Your task to perform on an android device: Open settings Image 0: 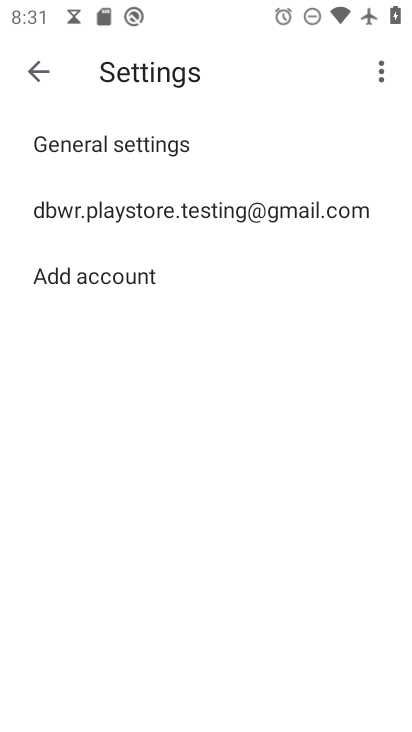
Step 0: press home button
Your task to perform on an android device: Open settings Image 1: 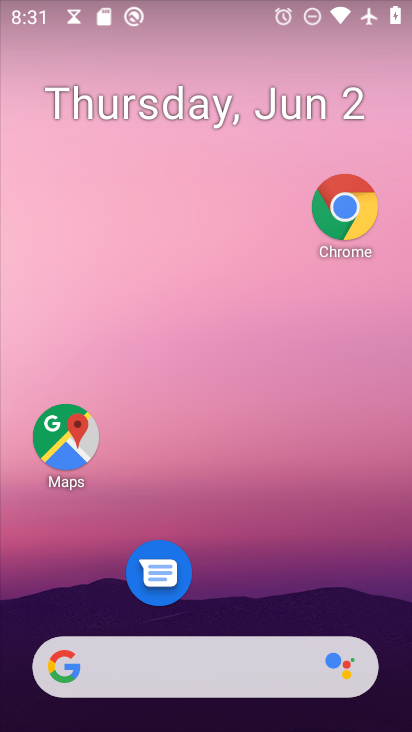
Step 1: drag from (167, 641) to (257, 118)
Your task to perform on an android device: Open settings Image 2: 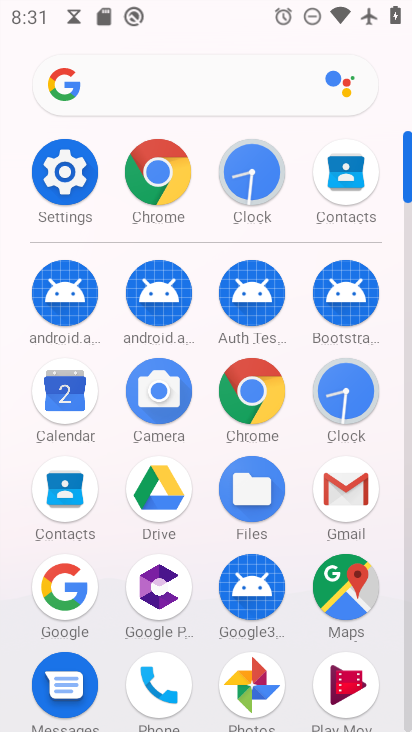
Step 2: click (69, 180)
Your task to perform on an android device: Open settings Image 3: 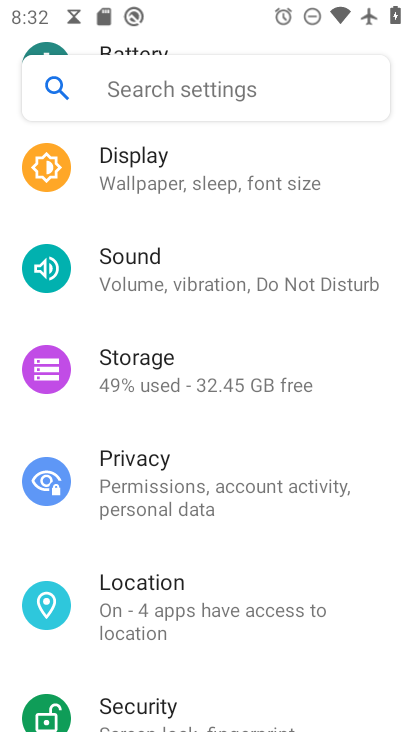
Step 3: task complete